Your task to perform on an android device: empty trash in google photos Image 0: 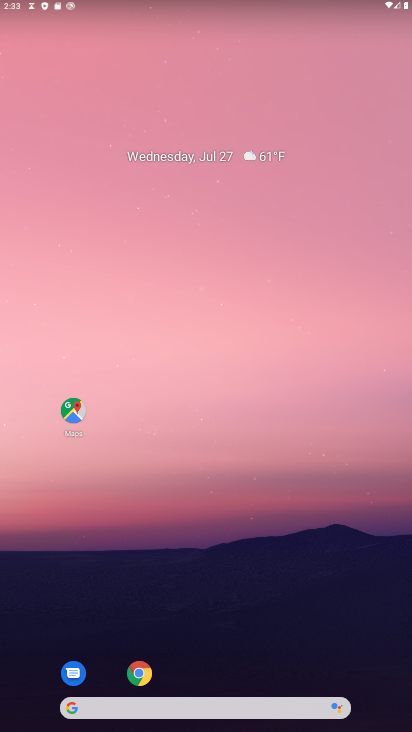
Step 0: drag from (33, 682) to (313, 31)
Your task to perform on an android device: empty trash in google photos Image 1: 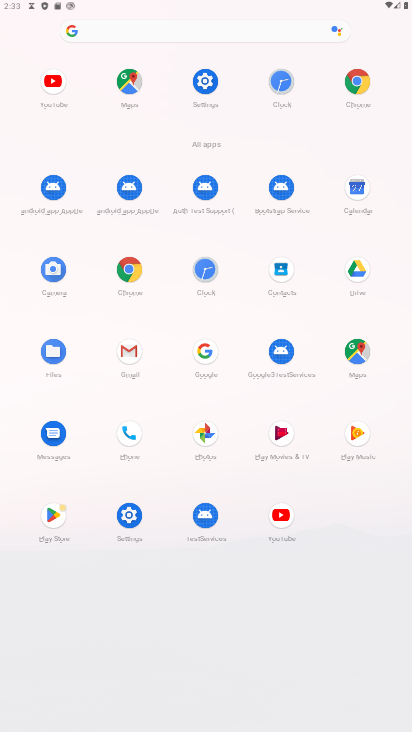
Step 1: click (198, 434)
Your task to perform on an android device: empty trash in google photos Image 2: 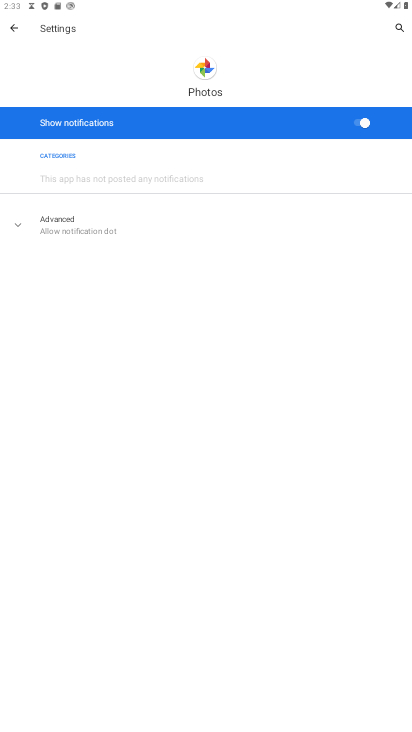
Step 2: click (7, 24)
Your task to perform on an android device: empty trash in google photos Image 3: 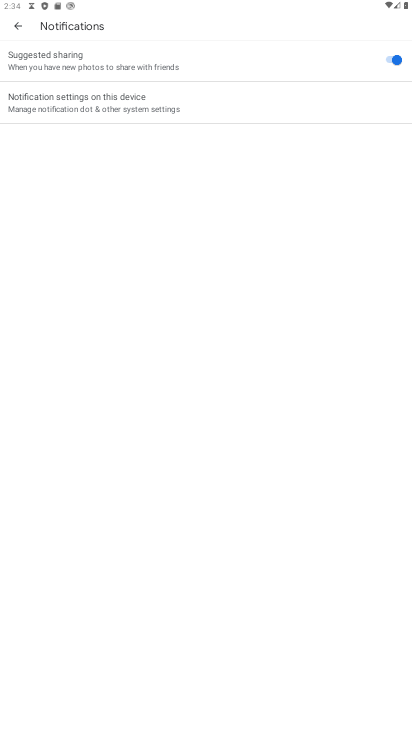
Step 3: click (16, 25)
Your task to perform on an android device: empty trash in google photos Image 4: 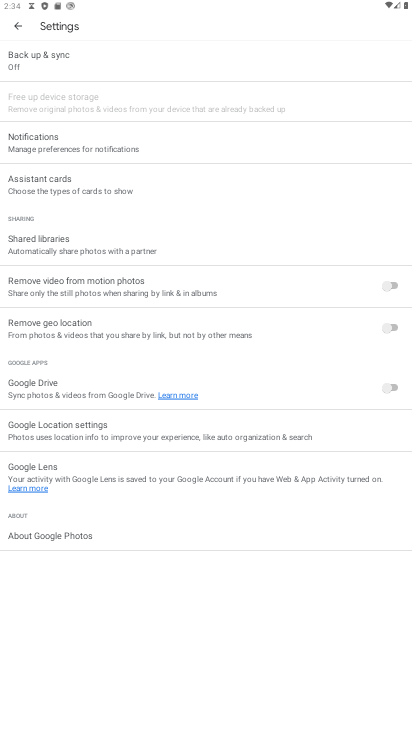
Step 4: click (22, 26)
Your task to perform on an android device: empty trash in google photos Image 5: 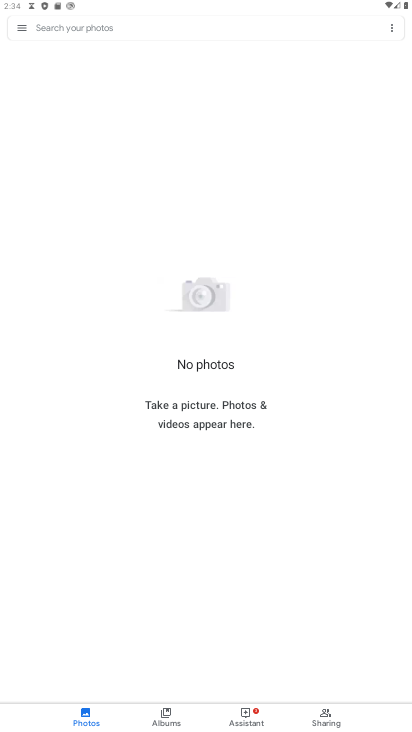
Step 5: click (21, 21)
Your task to perform on an android device: empty trash in google photos Image 6: 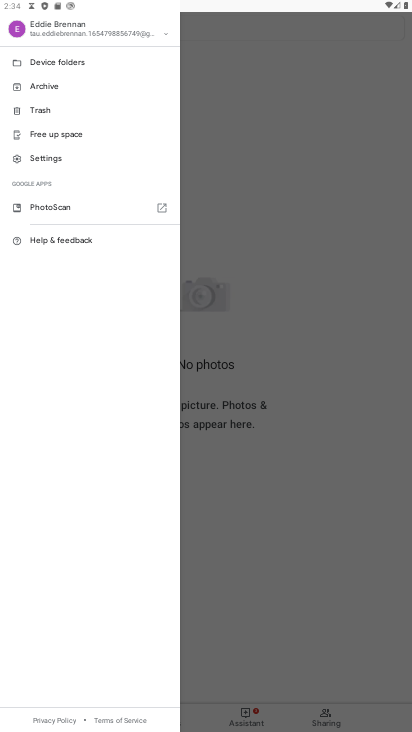
Step 6: click (41, 109)
Your task to perform on an android device: empty trash in google photos Image 7: 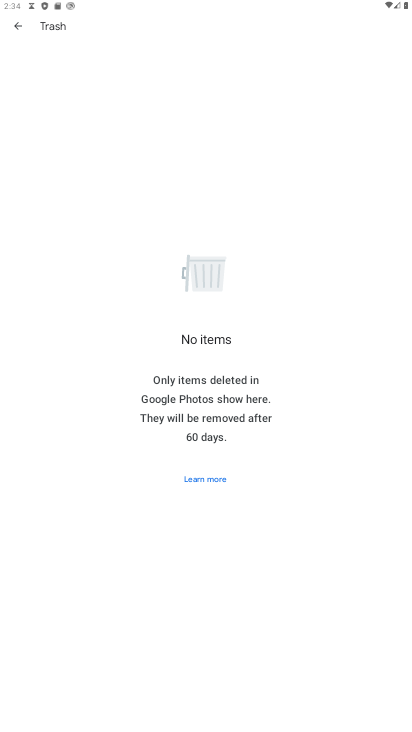
Step 7: task complete